Your task to perform on an android device: set the timer Image 0: 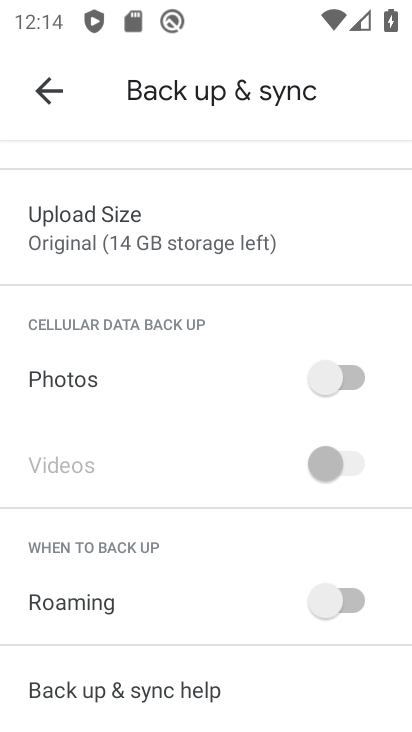
Step 0: press home button
Your task to perform on an android device: set the timer Image 1: 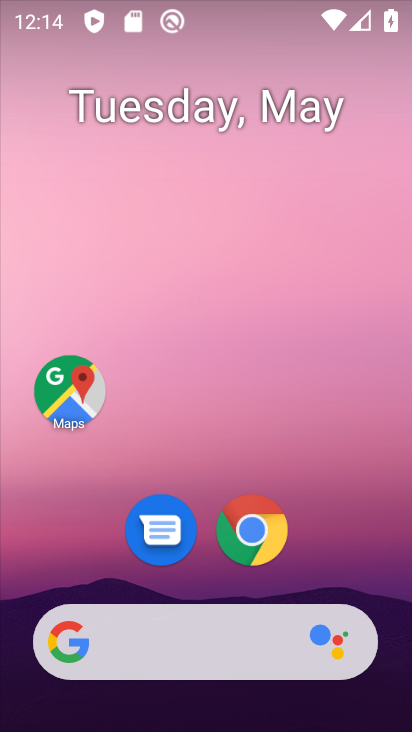
Step 1: drag from (346, 543) to (222, 12)
Your task to perform on an android device: set the timer Image 2: 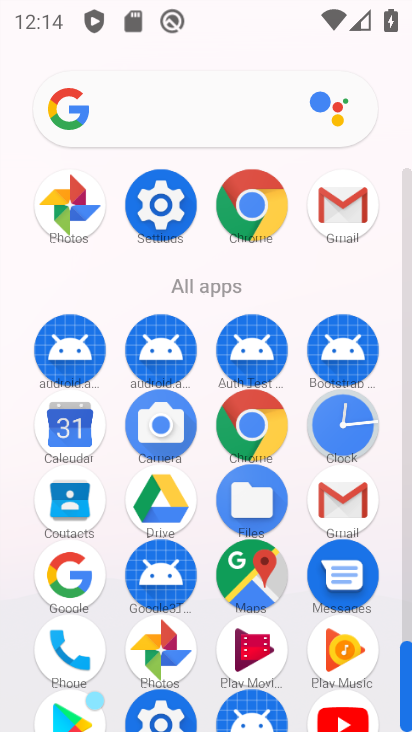
Step 2: drag from (5, 612) to (3, 220)
Your task to perform on an android device: set the timer Image 3: 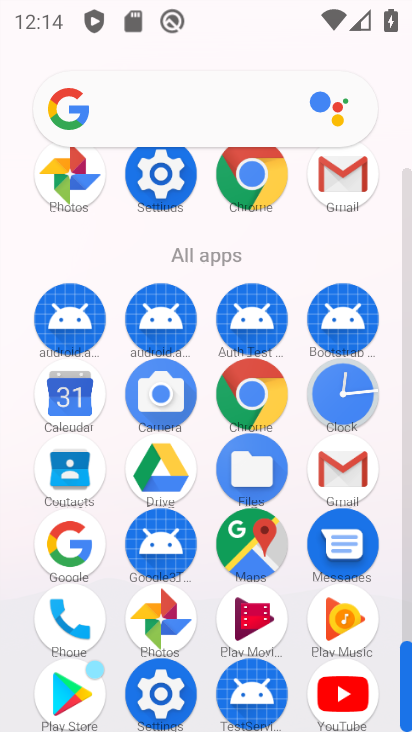
Step 3: click (341, 392)
Your task to perform on an android device: set the timer Image 4: 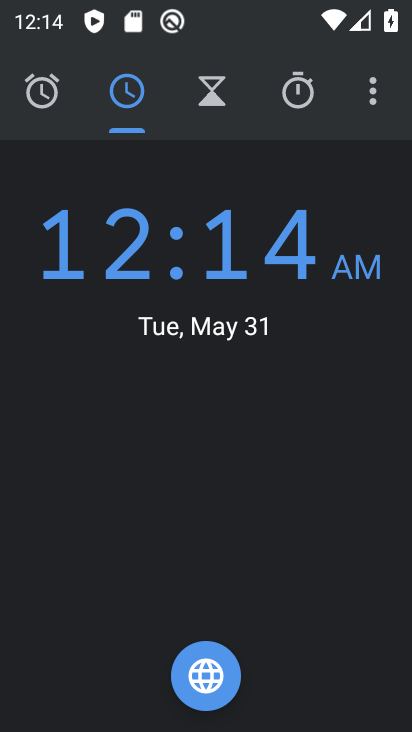
Step 4: drag from (368, 82) to (320, 168)
Your task to perform on an android device: set the timer Image 5: 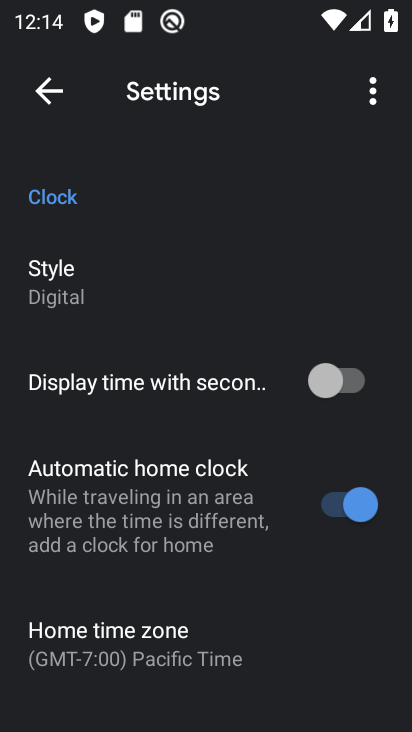
Step 5: drag from (192, 588) to (204, 237)
Your task to perform on an android device: set the timer Image 6: 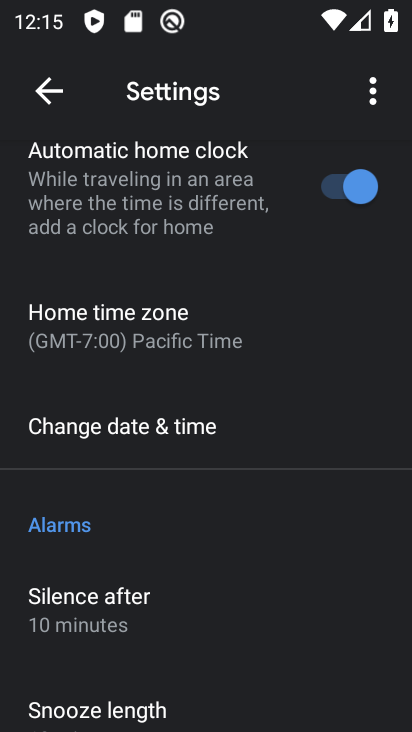
Step 6: drag from (224, 665) to (214, 186)
Your task to perform on an android device: set the timer Image 7: 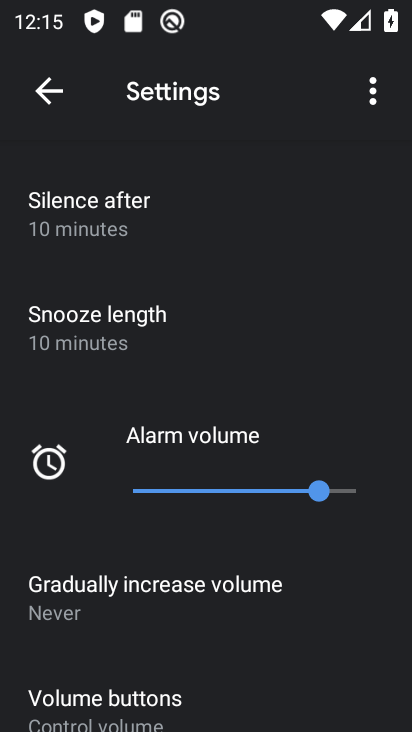
Step 7: drag from (195, 521) to (193, 178)
Your task to perform on an android device: set the timer Image 8: 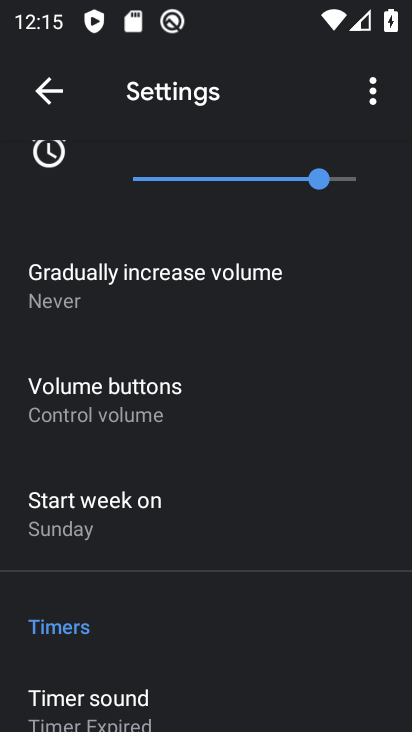
Step 8: drag from (231, 641) to (257, 259)
Your task to perform on an android device: set the timer Image 9: 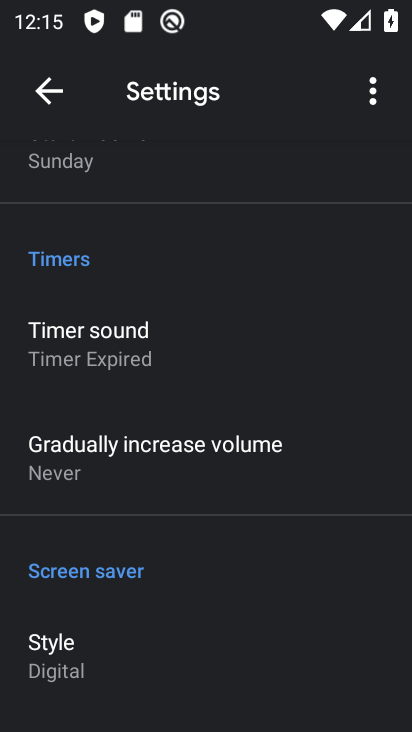
Step 9: click (50, 98)
Your task to perform on an android device: set the timer Image 10: 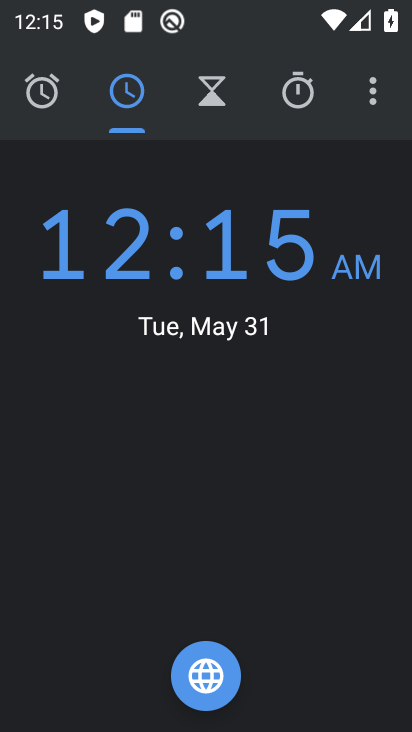
Step 10: click (309, 99)
Your task to perform on an android device: set the timer Image 11: 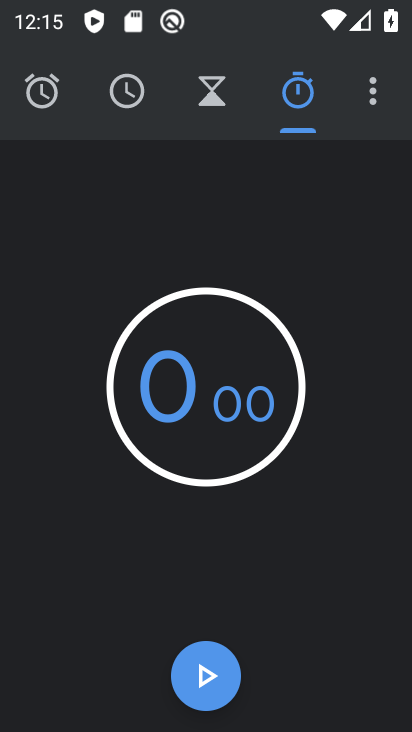
Step 11: click (224, 667)
Your task to perform on an android device: set the timer Image 12: 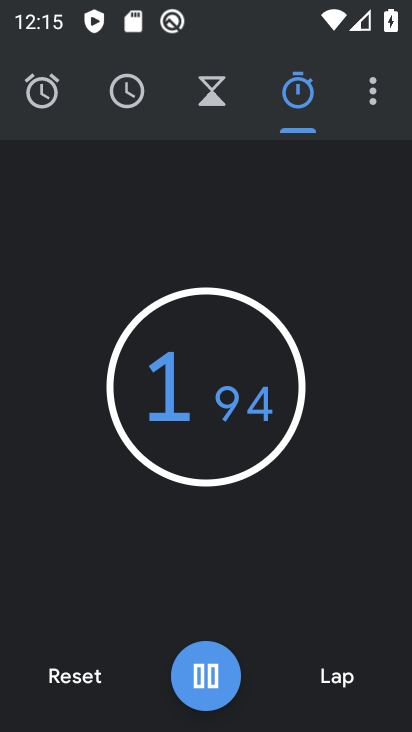
Step 12: task complete